Your task to perform on an android device: Check the weather Image 0: 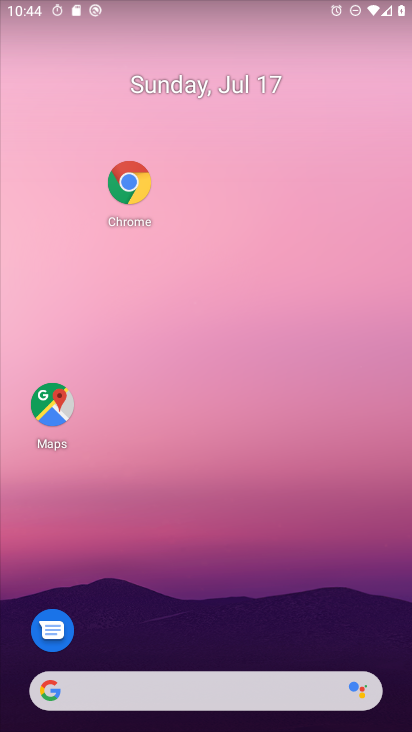
Step 0: drag from (274, 641) to (215, 296)
Your task to perform on an android device: Check the weather Image 1: 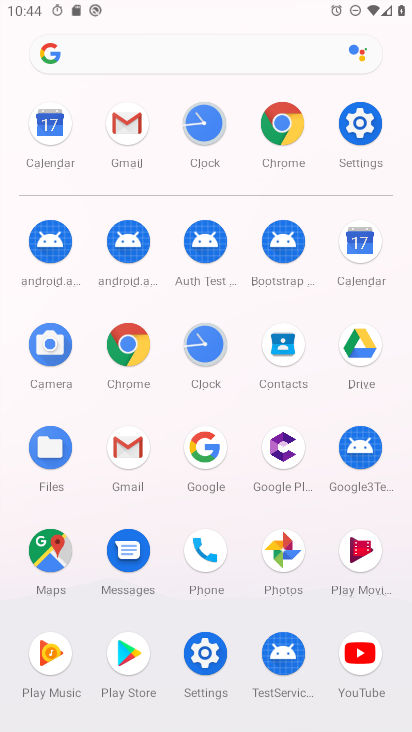
Step 1: click (286, 124)
Your task to perform on an android device: Check the weather Image 2: 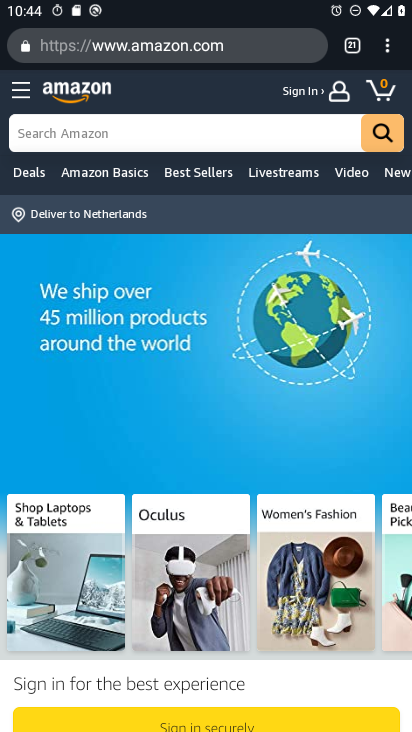
Step 2: click (398, 34)
Your task to perform on an android device: Check the weather Image 3: 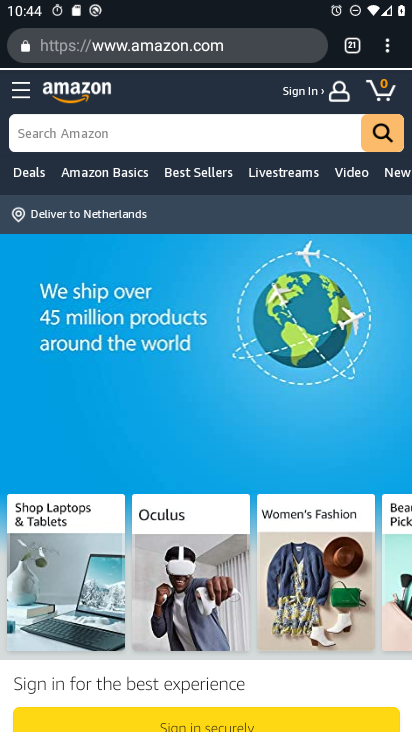
Step 3: click (393, 46)
Your task to perform on an android device: Check the weather Image 4: 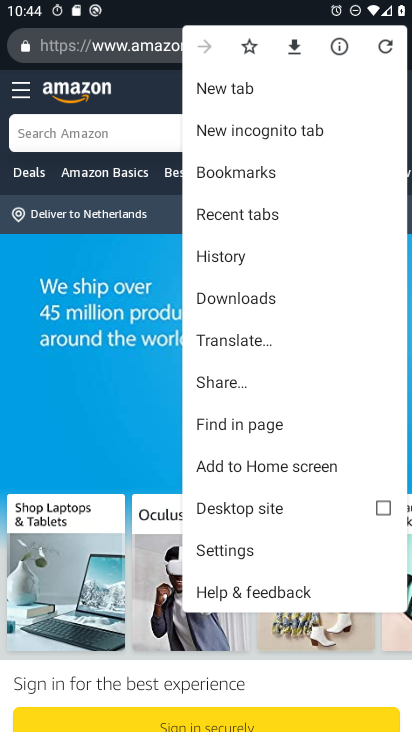
Step 4: click (248, 74)
Your task to perform on an android device: Check the weather Image 5: 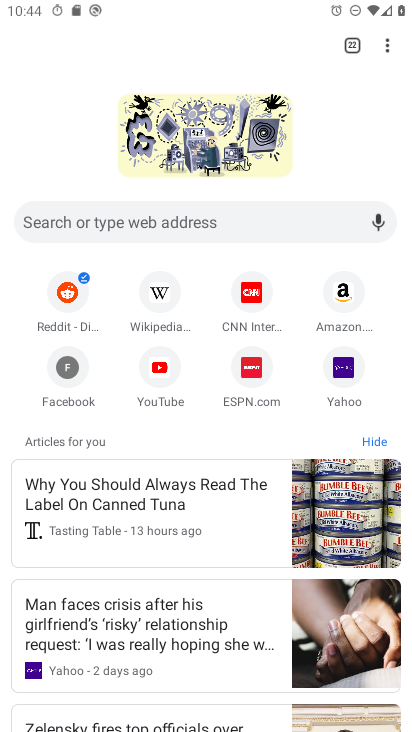
Step 5: click (234, 212)
Your task to perform on an android device: Check the weather Image 6: 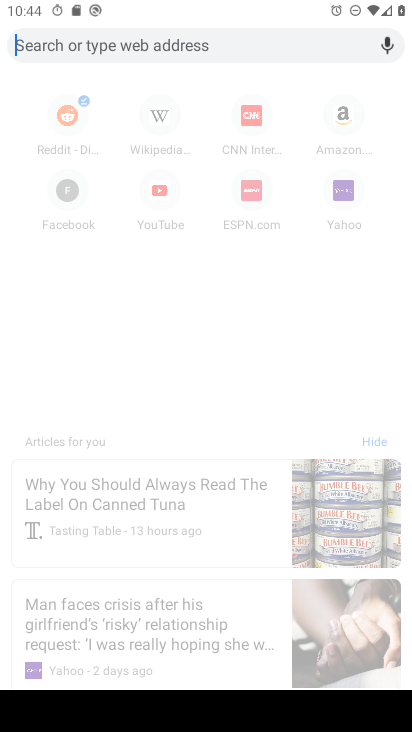
Step 6: type "Check the weather "
Your task to perform on an android device: Check the weather Image 7: 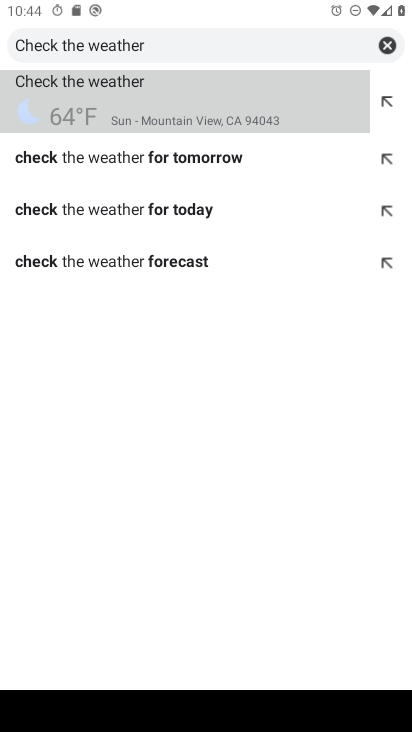
Step 7: type "Check the weather "
Your task to perform on an android device: Check the weather Image 8: 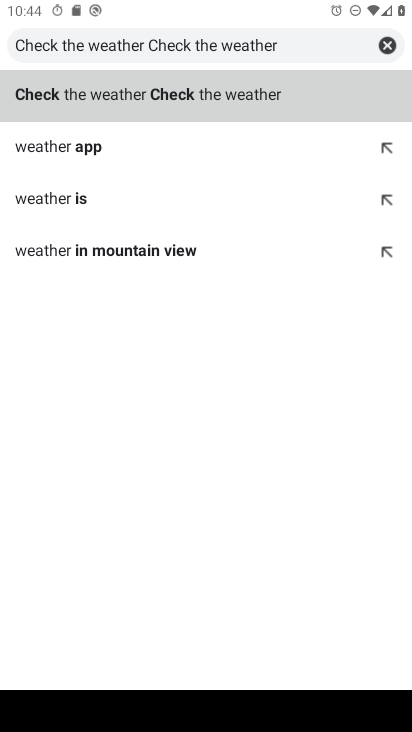
Step 8: click (108, 88)
Your task to perform on an android device: Check the weather Image 9: 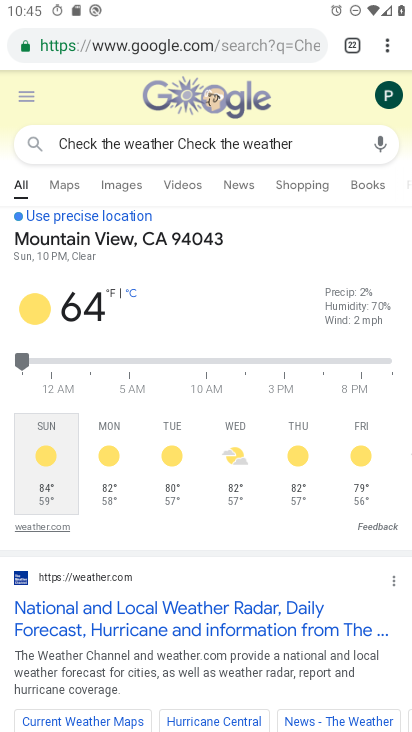
Step 9: task complete